Your task to perform on an android device: Clear the cart on bestbuy.com. Search for energizer triple a on bestbuy.com, select the first entry, add it to the cart, then select checkout. Image 0: 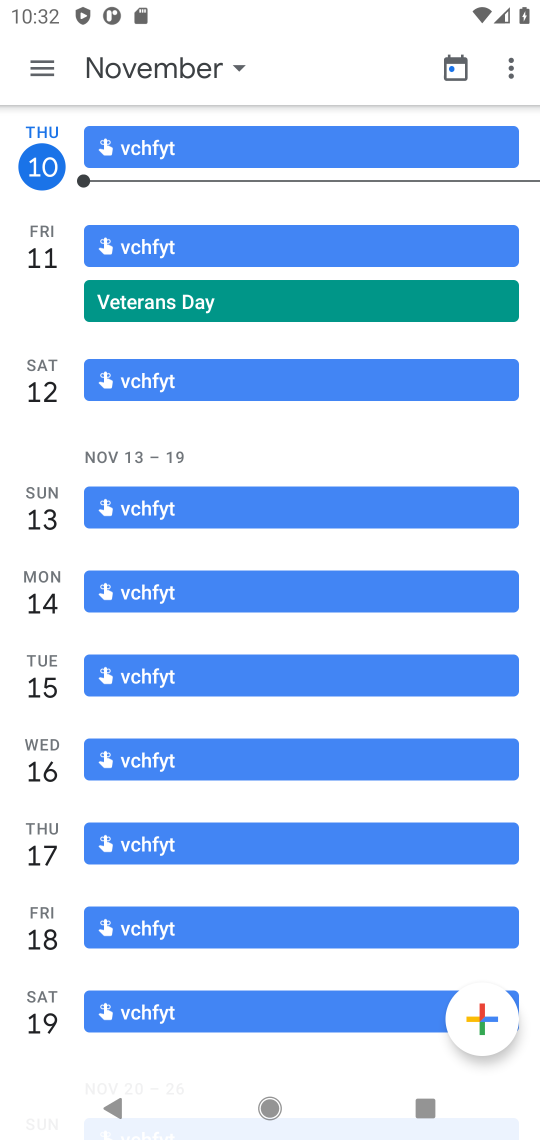
Step 0: press home button
Your task to perform on an android device: Clear the cart on bestbuy.com. Search for energizer triple a on bestbuy.com, select the first entry, add it to the cart, then select checkout. Image 1: 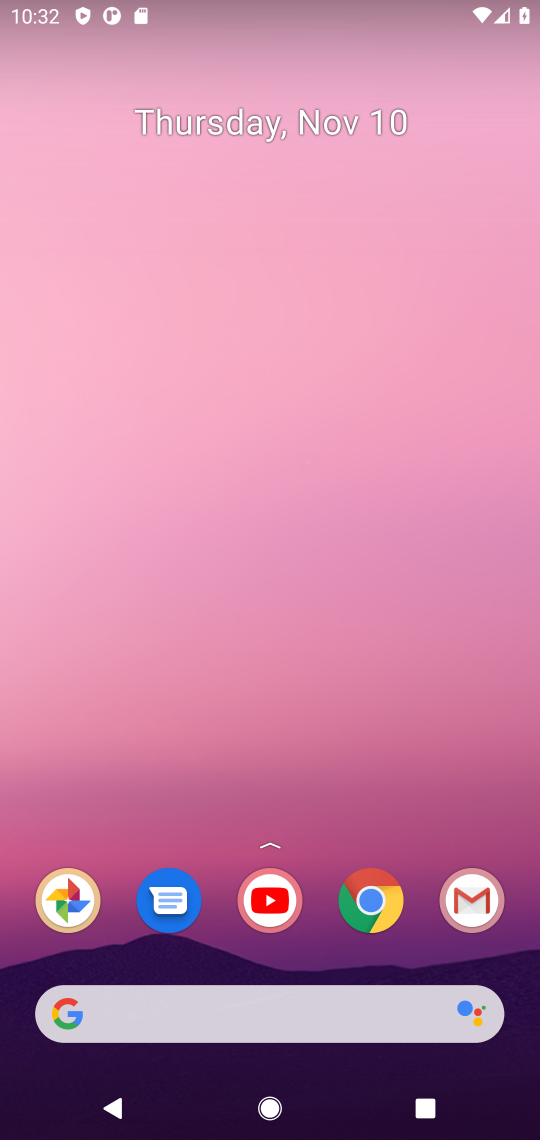
Step 1: click (358, 893)
Your task to perform on an android device: Clear the cart on bestbuy.com. Search for energizer triple a on bestbuy.com, select the first entry, add it to the cart, then select checkout. Image 2: 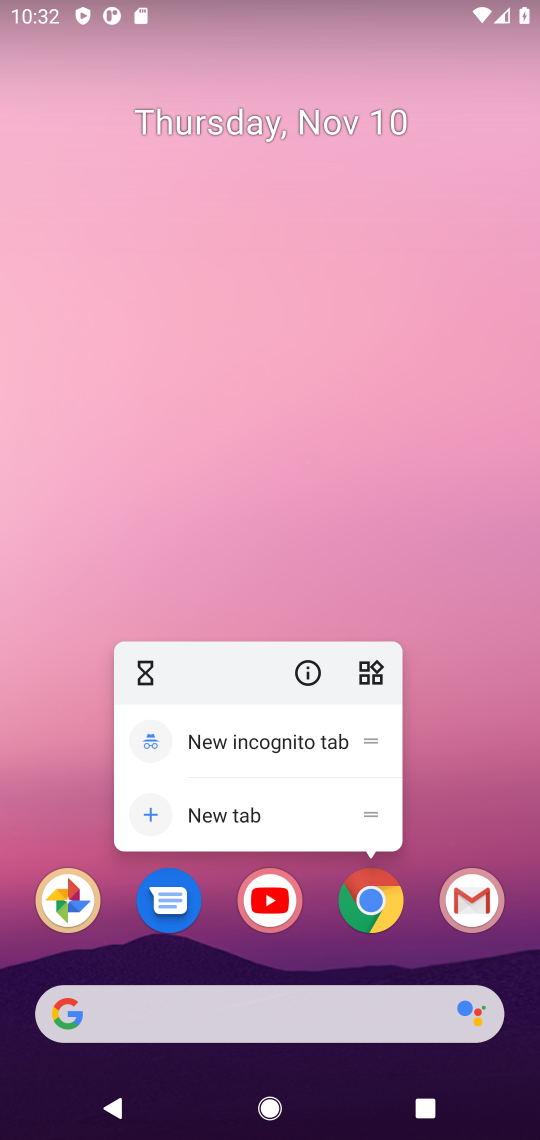
Step 2: click (374, 914)
Your task to perform on an android device: Clear the cart on bestbuy.com. Search for energizer triple a on bestbuy.com, select the first entry, add it to the cart, then select checkout. Image 3: 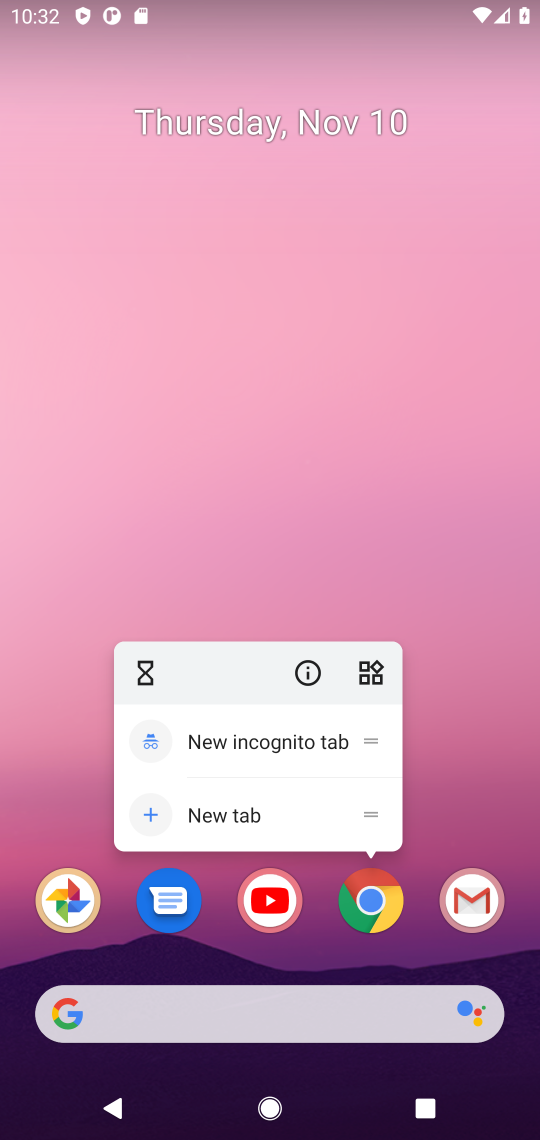
Step 3: click (374, 914)
Your task to perform on an android device: Clear the cart on bestbuy.com. Search for energizer triple a on bestbuy.com, select the first entry, add it to the cart, then select checkout. Image 4: 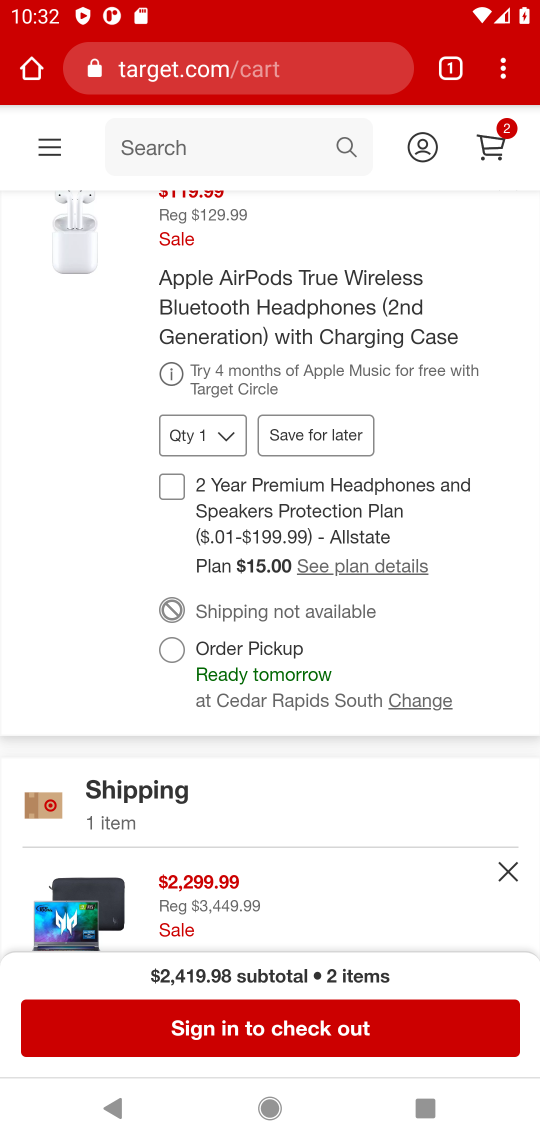
Step 4: click (295, 66)
Your task to perform on an android device: Clear the cart on bestbuy.com. Search for energizer triple a on bestbuy.com, select the first entry, add it to the cart, then select checkout. Image 5: 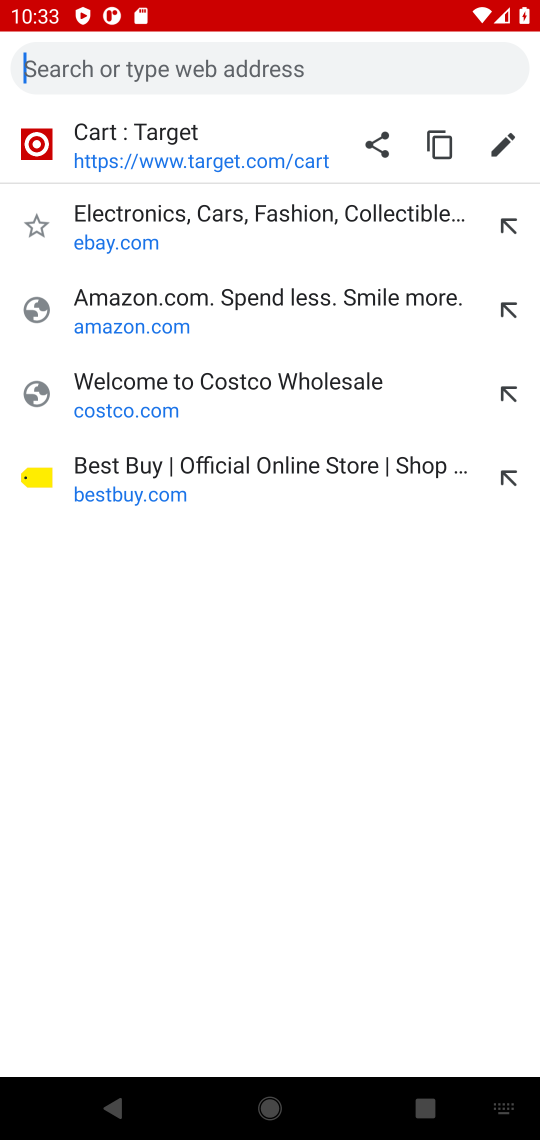
Step 5: click (151, 493)
Your task to perform on an android device: Clear the cart on bestbuy.com. Search for energizer triple a on bestbuy.com, select the first entry, add it to the cart, then select checkout. Image 6: 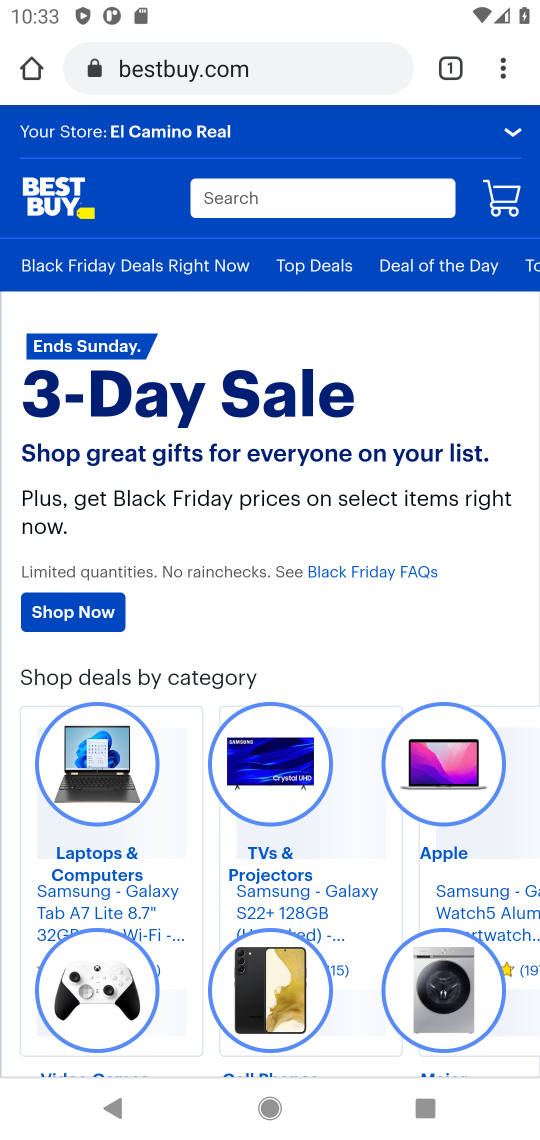
Step 6: click (262, 199)
Your task to perform on an android device: Clear the cart on bestbuy.com. Search for energizer triple a on bestbuy.com, select the first entry, add it to the cart, then select checkout. Image 7: 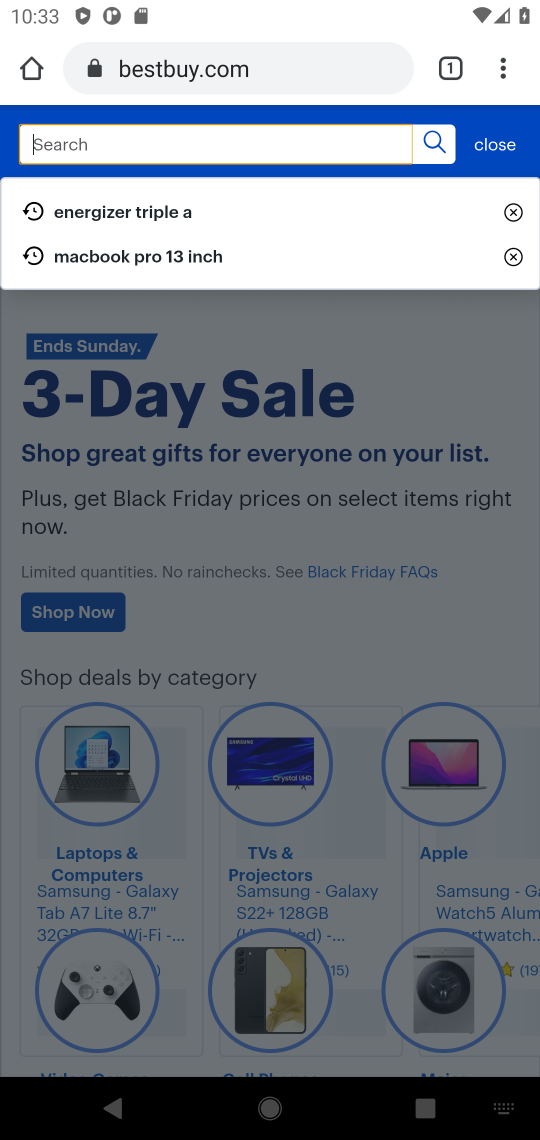
Step 7: type "energizer triple a "
Your task to perform on an android device: Clear the cart on bestbuy.com. Search for energizer triple a on bestbuy.com, select the first entry, add it to the cart, then select checkout. Image 8: 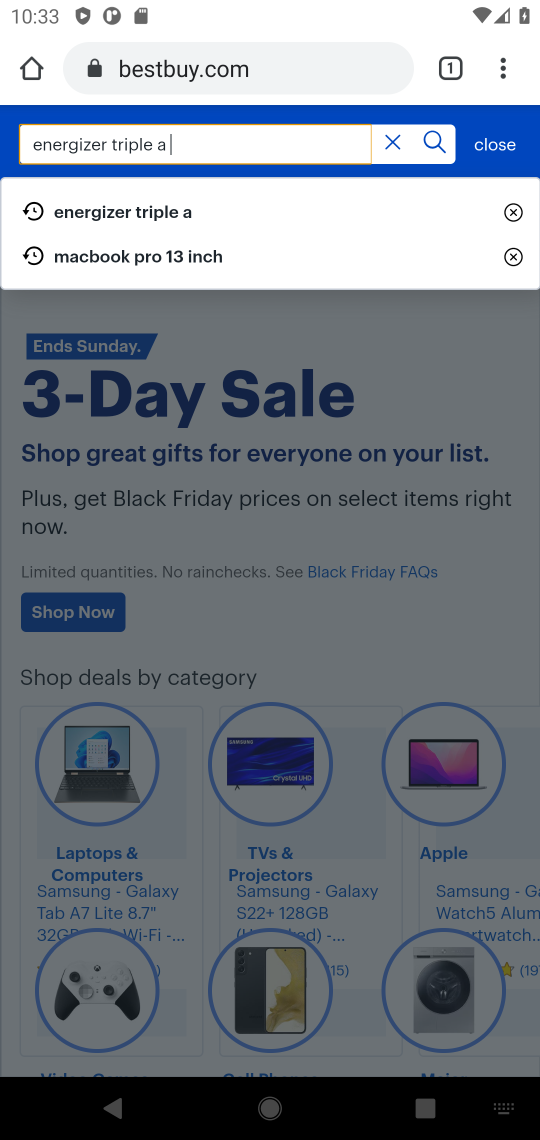
Step 8: press enter
Your task to perform on an android device: Clear the cart on bestbuy.com. Search for energizer triple a on bestbuy.com, select the first entry, add it to the cart, then select checkout. Image 9: 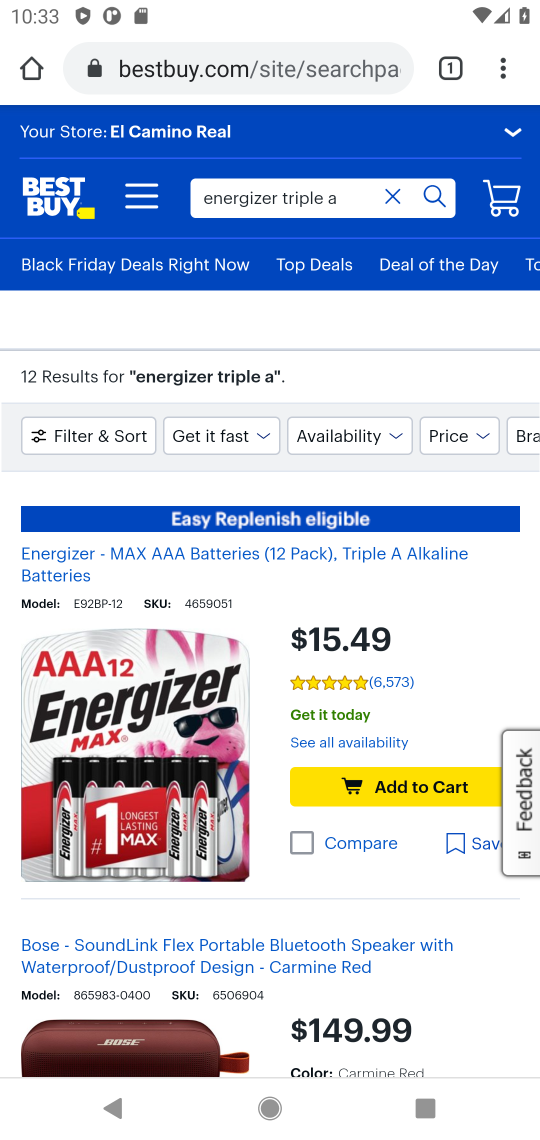
Step 9: click (186, 553)
Your task to perform on an android device: Clear the cart on bestbuy.com. Search for energizer triple a on bestbuy.com, select the first entry, add it to the cart, then select checkout. Image 10: 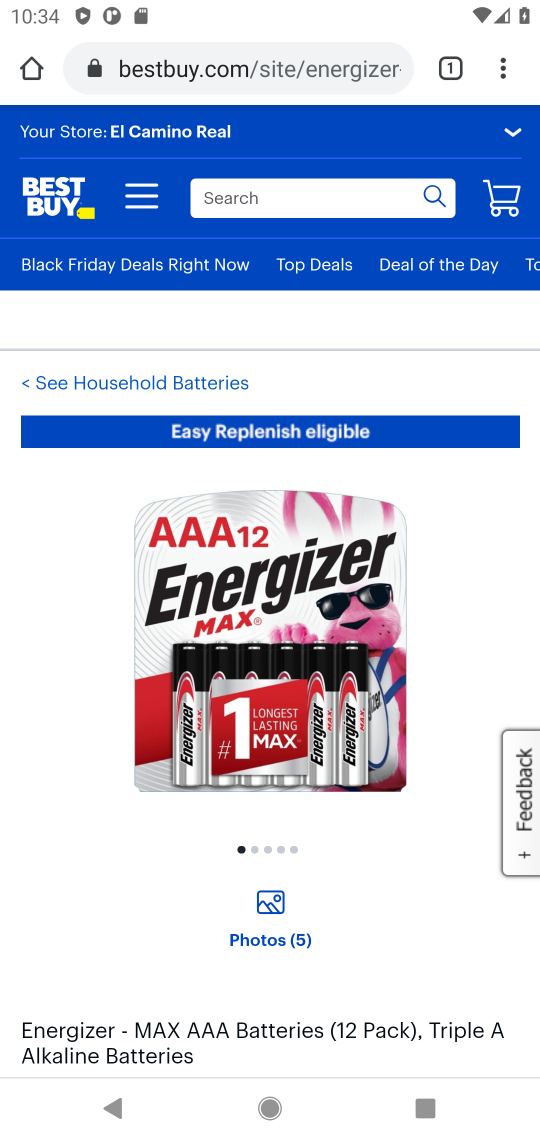
Step 10: task complete